Your task to perform on an android device: Open eBay Image 0: 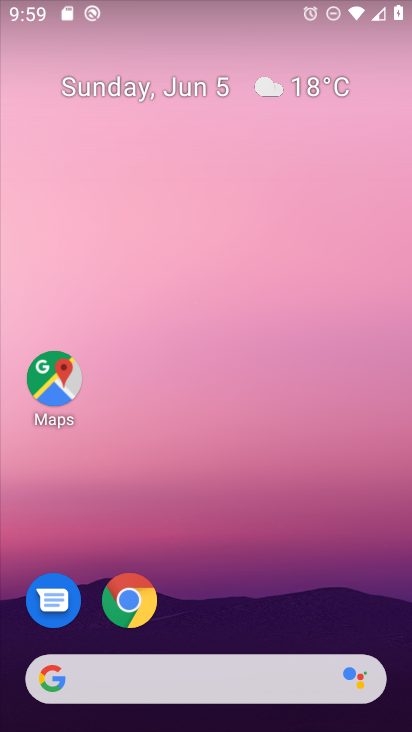
Step 0: click (263, 676)
Your task to perform on an android device: Open eBay Image 1: 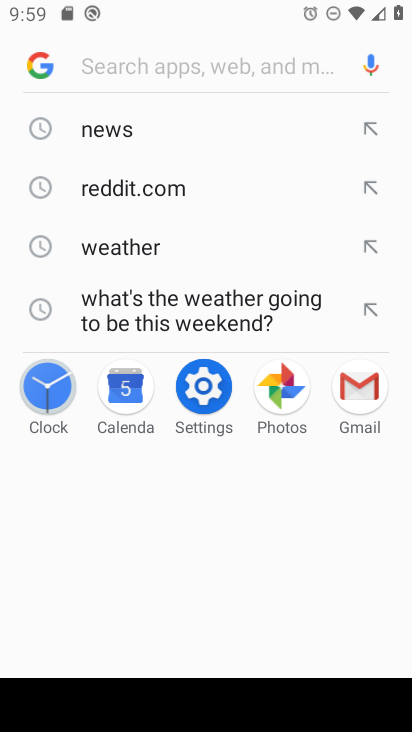
Step 1: type "ebay"
Your task to perform on an android device: Open eBay Image 2: 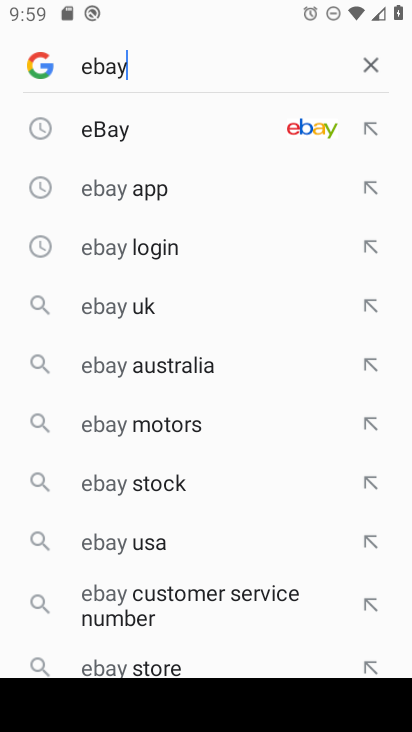
Step 2: click (121, 143)
Your task to perform on an android device: Open eBay Image 3: 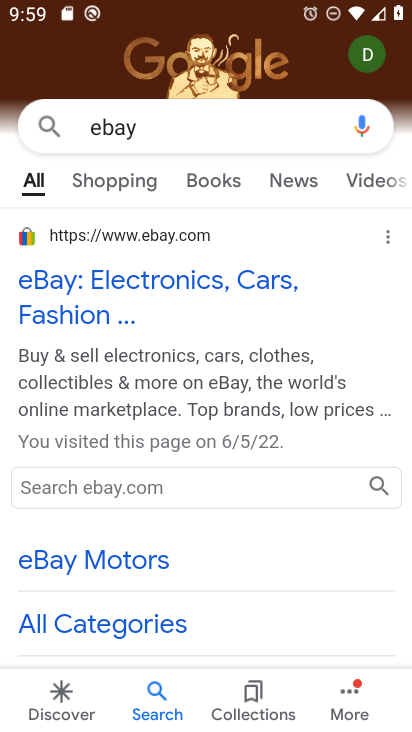
Step 3: click (62, 284)
Your task to perform on an android device: Open eBay Image 4: 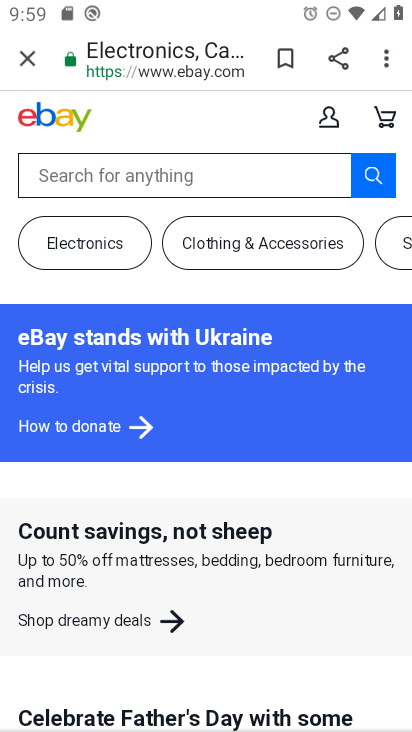
Step 4: task complete